Your task to perform on an android device: set the timer Image 0: 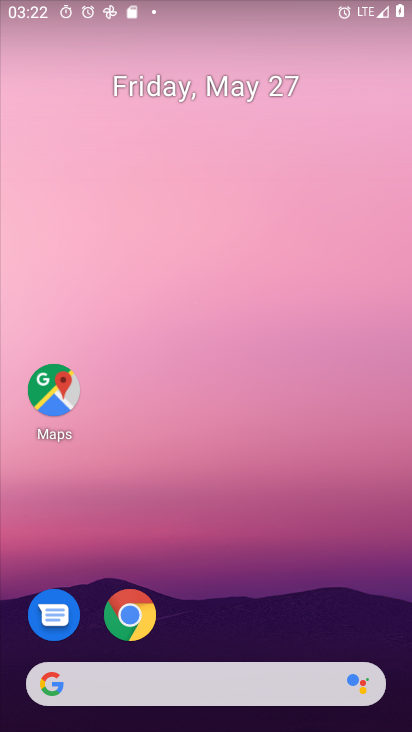
Step 0: drag from (358, 575) to (364, 214)
Your task to perform on an android device: set the timer Image 1: 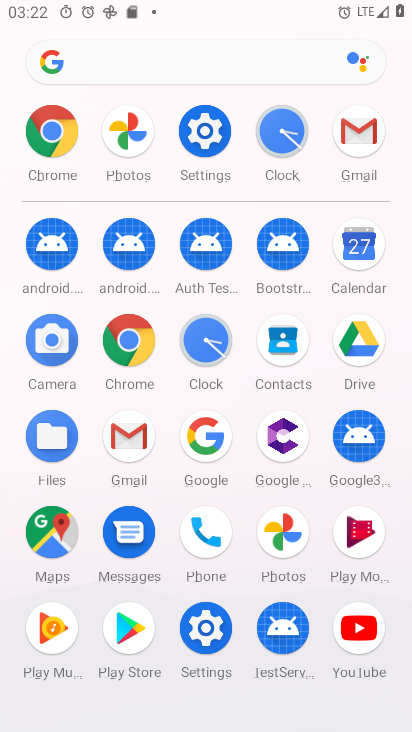
Step 1: click (216, 356)
Your task to perform on an android device: set the timer Image 2: 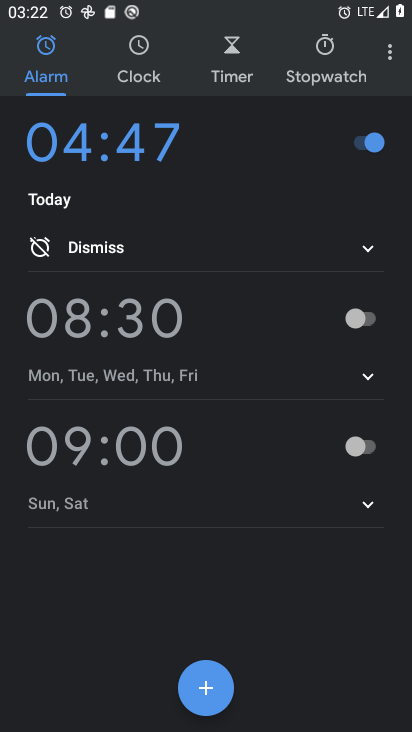
Step 2: click (201, 691)
Your task to perform on an android device: set the timer Image 3: 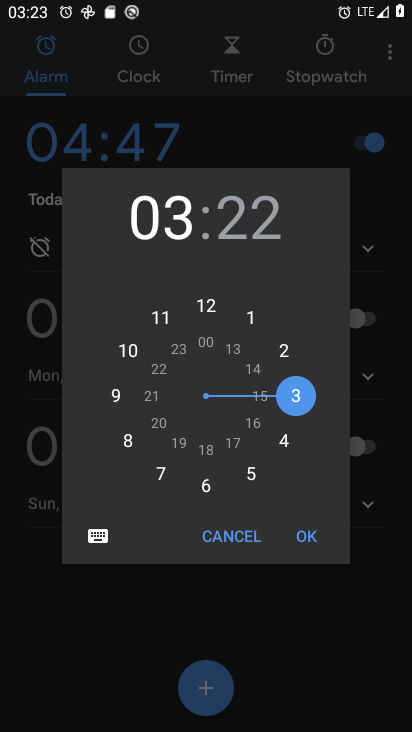
Step 3: click (205, 490)
Your task to perform on an android device: set the timer Image 4: 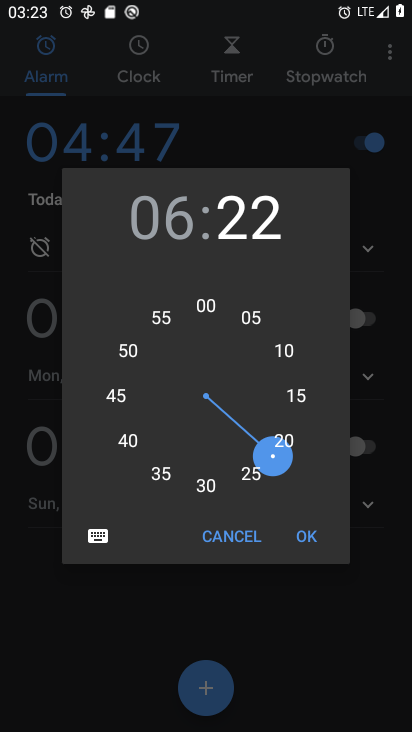
Step 4: click (205, 490)
Your task to perform on an android device: set the timer Image 5: 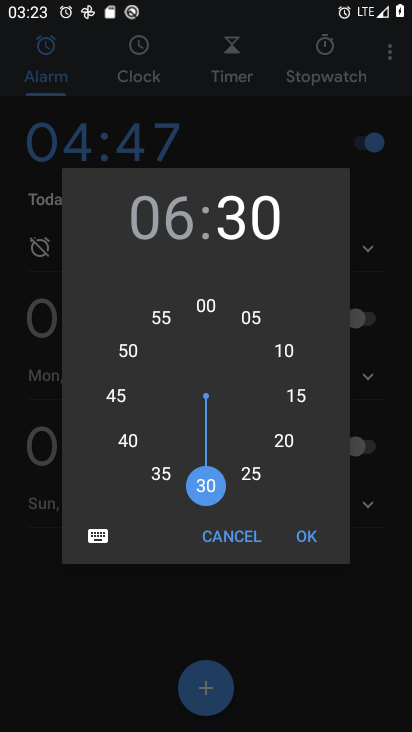
Step 5: click (304, 540)
Your task to perform on an android device: set the timer Image 6: 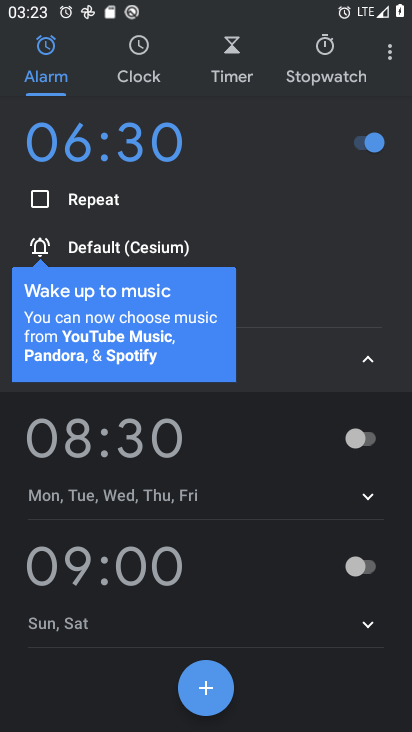
Step 6: task complete